Your task to perform on an android device: Open Maps and search for coffee Image 0: 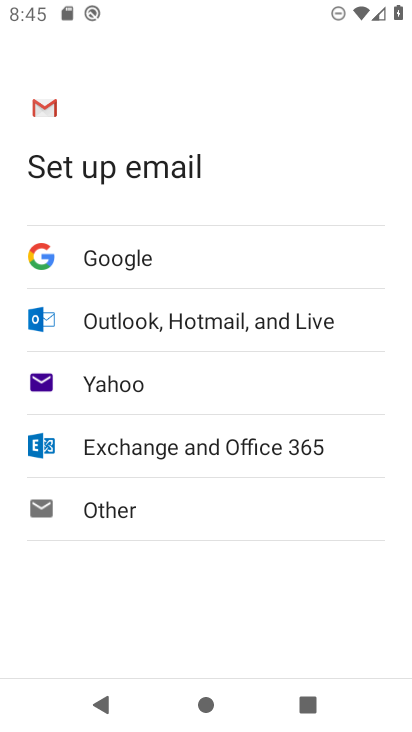
Step 0: press home button
Your task to perform on an android device: Open Maps and search for coffee Image 1: 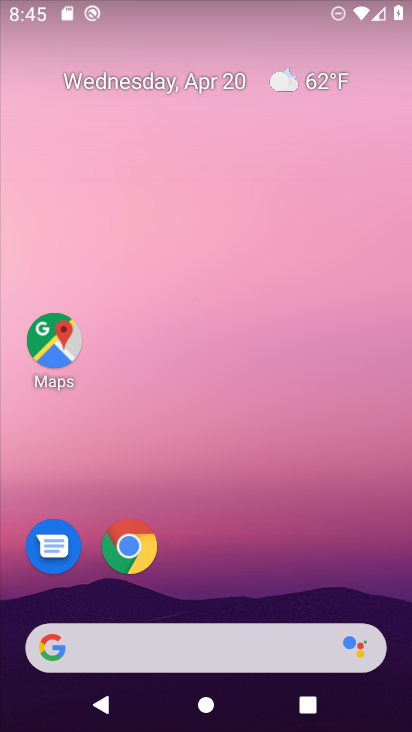
Step 1: click (45, 335)
Your task to perform on an android device: Open Maps and search for coffee Image 2: 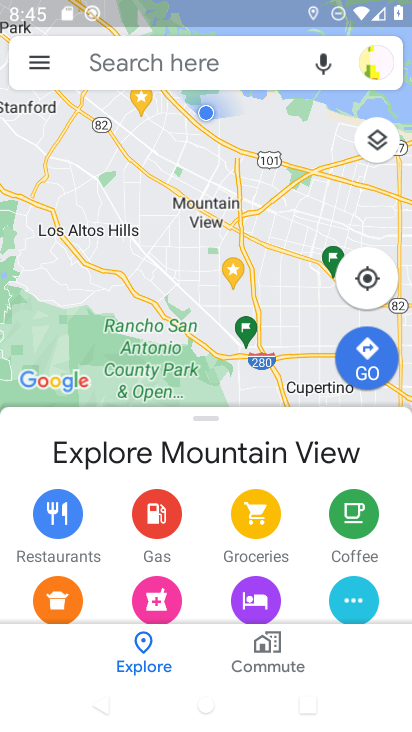
Step 2: click (184, 64)
Your task to perform on an android device: Open Maps and search for coffee Image 3: 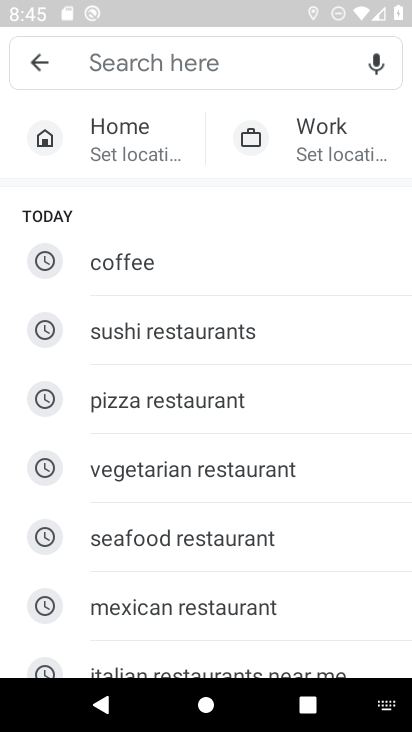
Step 3: click (186, 250)
Your task to perform on an android device: Open Maps and search for coffee Image 4: 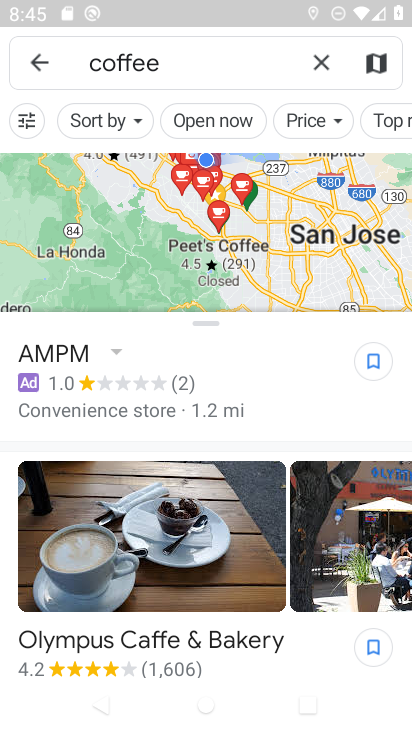
Step 4: task complete